Your task to perform on an android device: Go to privacy settings Image 0: 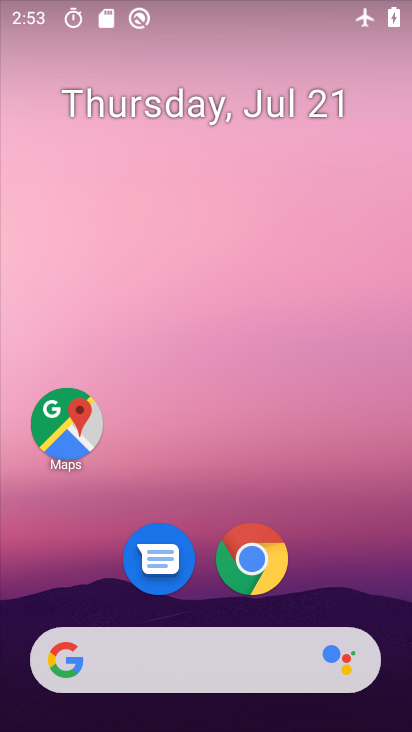
Step 0: drag from (362, 562) to (377, 88)
Your task to perform on an android device: Go to privacy settings Image 1: 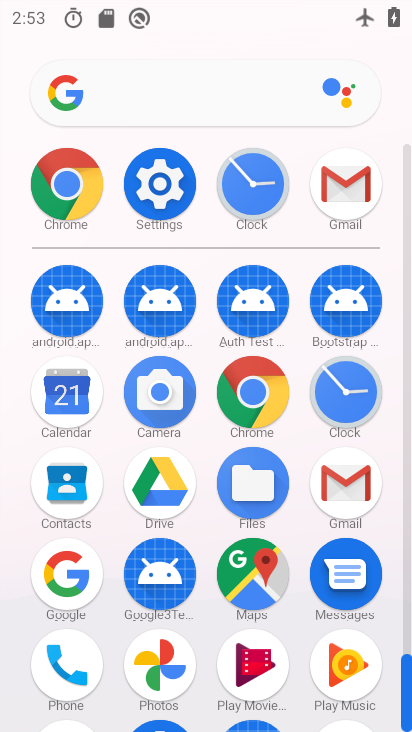
Step 1: click (170, 188)
Your task to perform on an android device: Go to privacy settings Image 2: 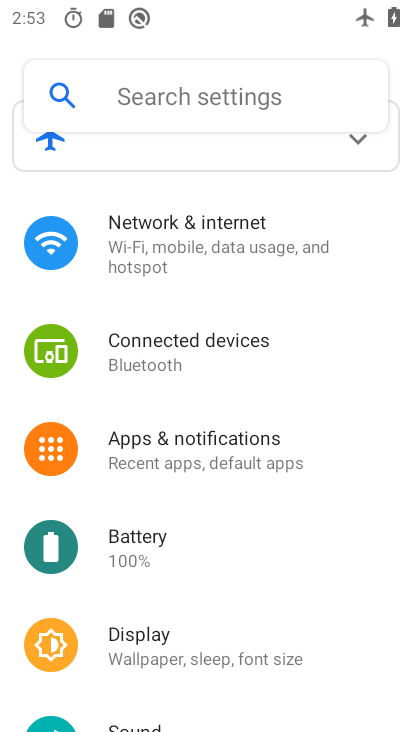
Step 2: drag from (355, 514) to (357, 400)
Your task to perform on an android device: Go to privacy settings Image 3: 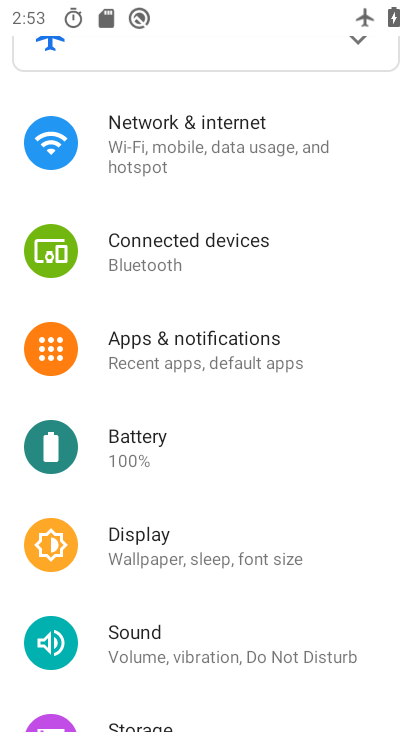
Step 3: drag from (355, 451) to (348, 317)
Your task to perform on an android device: Go to privacy settings Image 4: 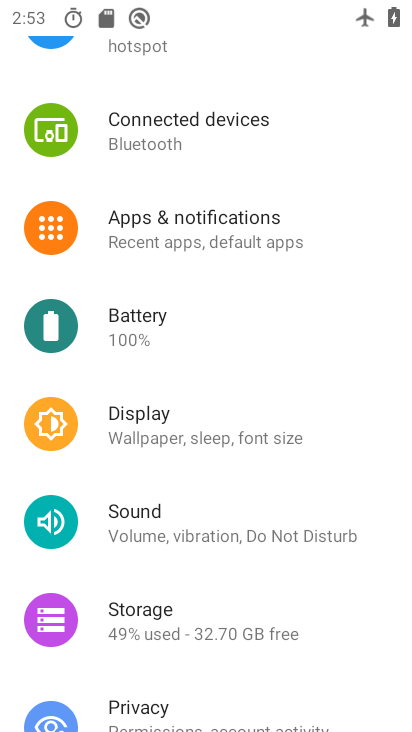
Step 4: drag from (348, 392) to (348, 277)
Your task to perform on an android device: Go to privacy settings Image 5: 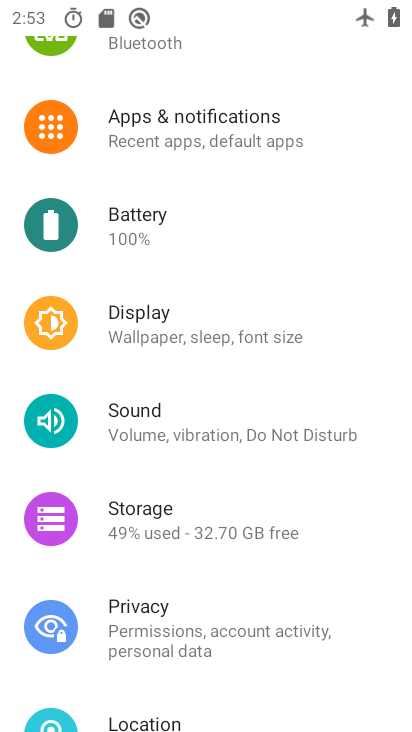
Step 5: drag from (347, 513) to (352, 299)
Your task to perform on an android device: Go to privacy settings Image 6: 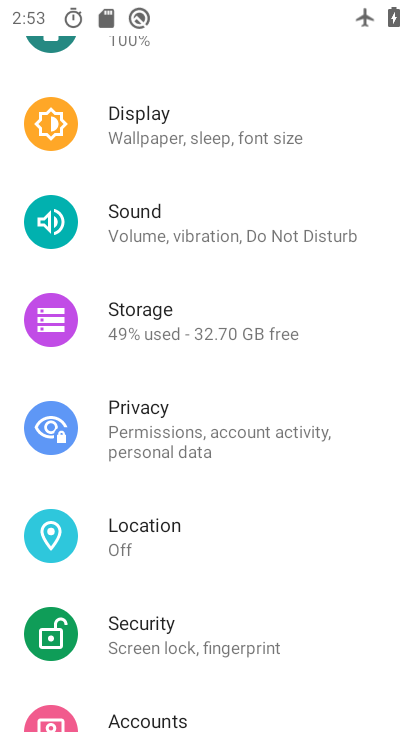
Step 6: drag from (355, 506) to (356, 375)
Your task to perform on an android device: Go to privacy settings Image 7: 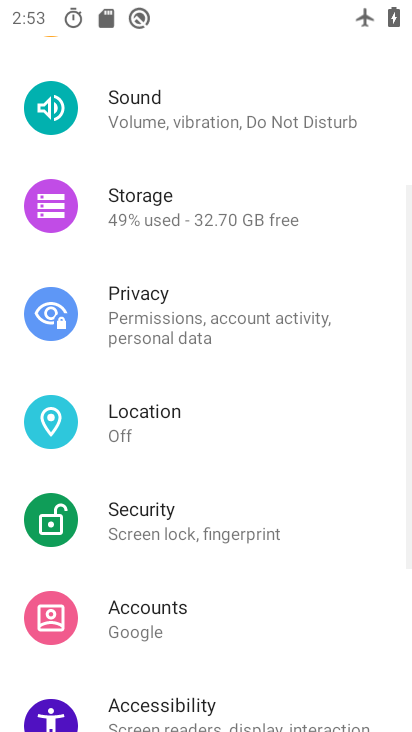
Step 7: drag from (341, 514) to (336, 332)
Your task to perform on an android device: Go to privacy settings Image 8: 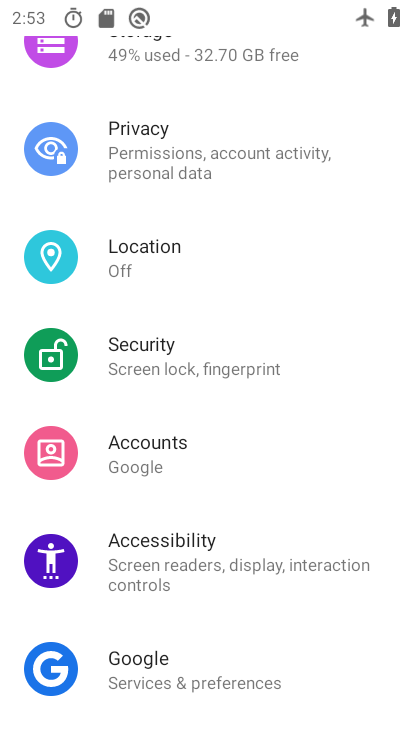
Step 8: drag from (345, 375) to (345, 280)
Your task to perform on an android device: Go to privacy settings Image 9: 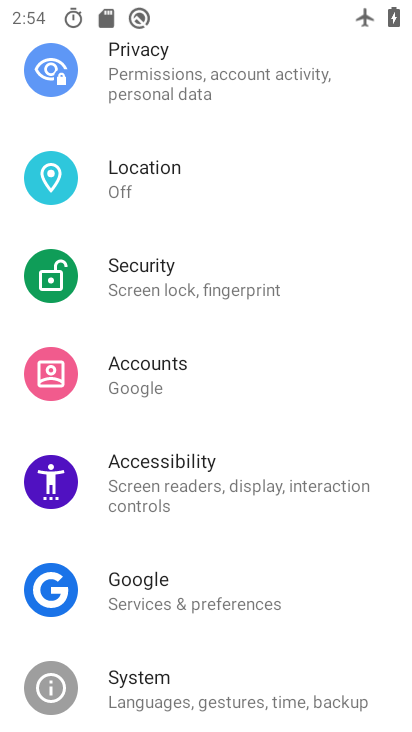
Step 9: drag from (336, 421) to (333, 241)
Your task to perform on an android device: Go to privacy settings Image 10: 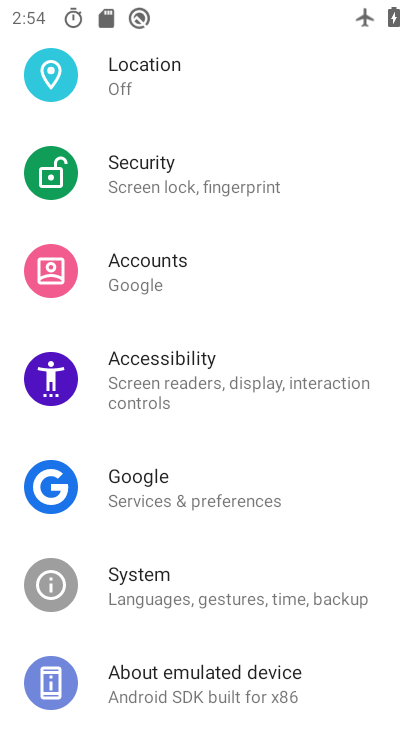
Step 10: drag from (336, 233) to (345, 359)
Your task to perform on an android device: Go to privacy settings Image 11: 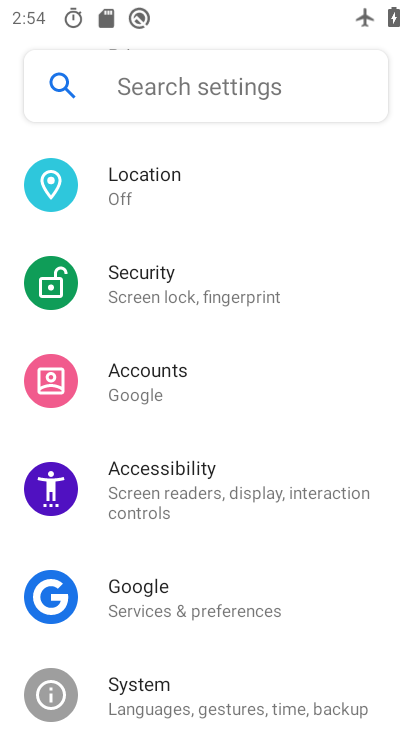
Step 11: drag from (345, 244) to (347, 355)
Your task to perform on an android device: Go to privacy settings Image 12: 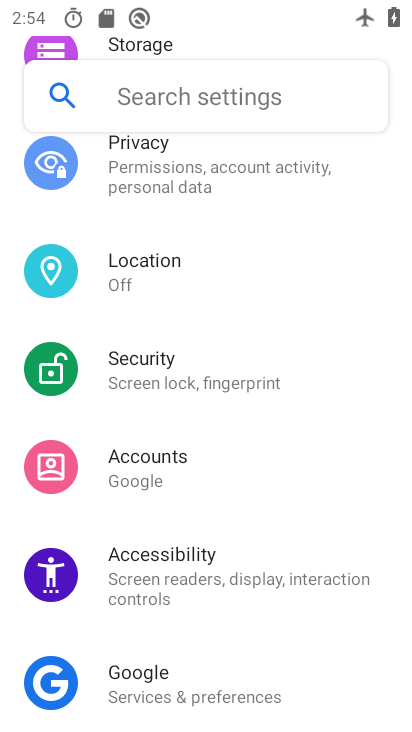
Step 12: drag from (336, 242) to (344, 396)
Your task to perform on an android device: Go to privacy settings Image 13: 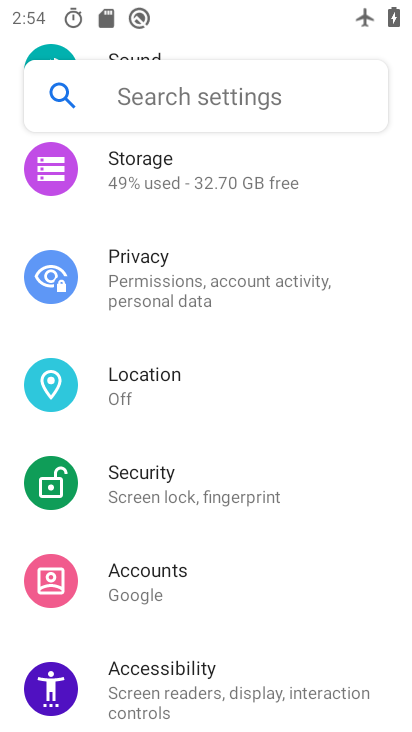
Step 13: drag from (343, 230) to (344, 398)
Your task to perform on an android device: Go to privacy settings Image 14: 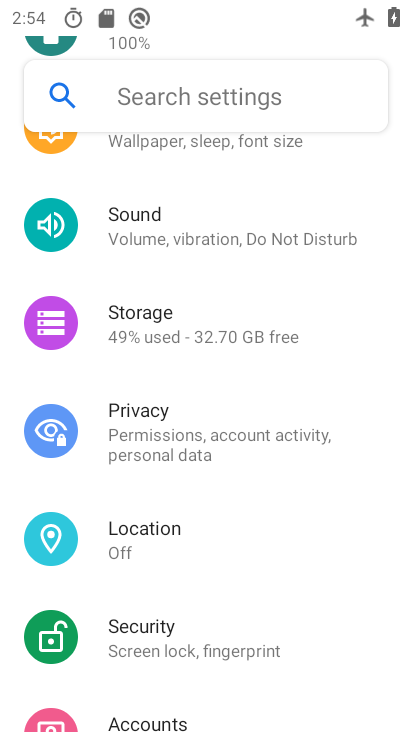
Step 14: drag from (359, 314) to (354, 420)
Your task to perform on an android device: Go to privacy settings Image 15: 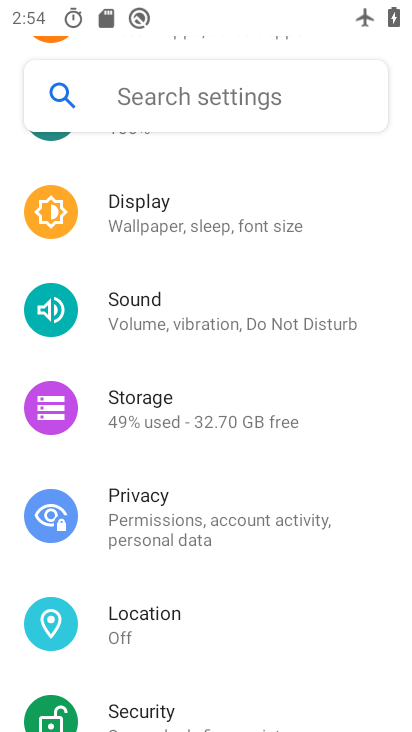
Step 15: click (279, 528)
Your task to perform on an android device: Go to privacy settings Image 16: 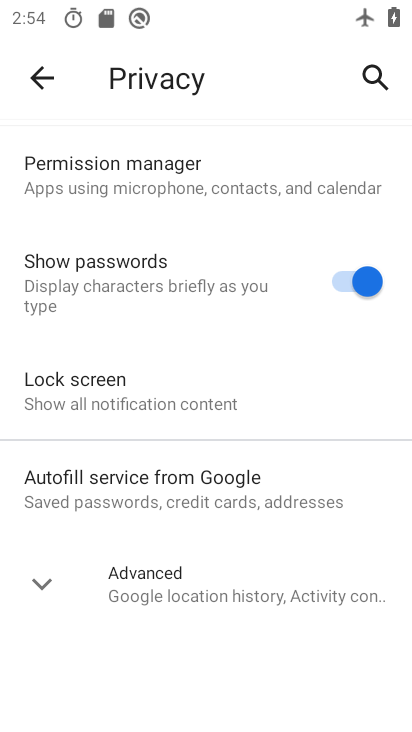
Step 16: click (321, 585)
Your task to perform on an android device: Go to privacy settings Image 17: 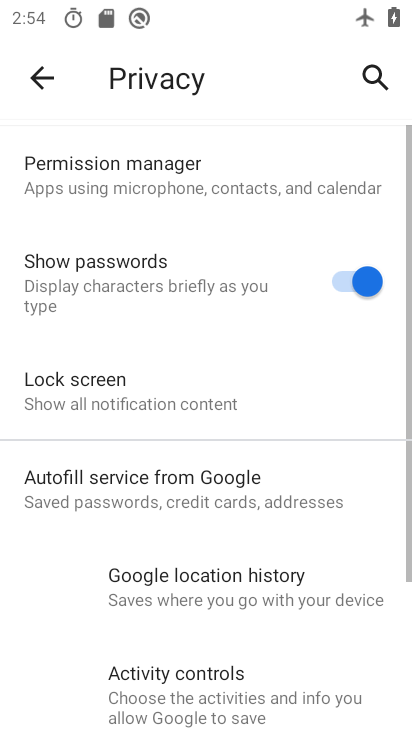
Step 17: task complete